Your task to perform on an android device: read, delete, or share a saved page in the chrome app Image 0: 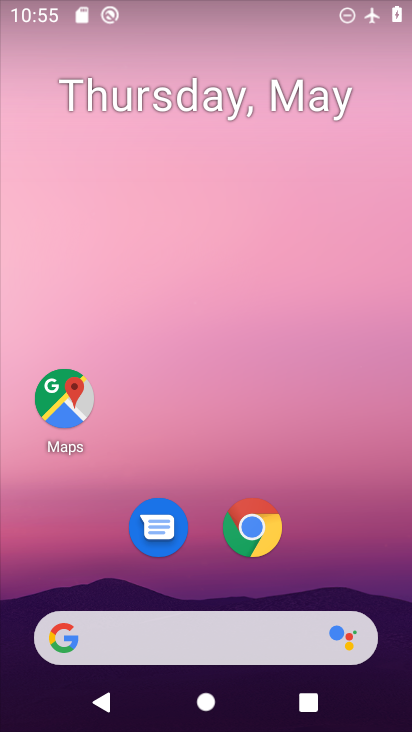
Step 0: click (248, 531)
Your task to perform on an android device: read, delete, or share a saved page in the chrome app Image 1: 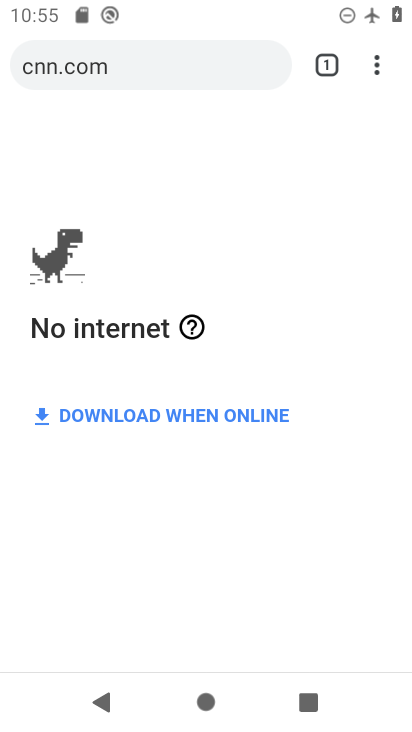
Step 1: click (382, 61)
Your task to perform on an android device: read, delete, or share a saved page in the chrome app Image 2: 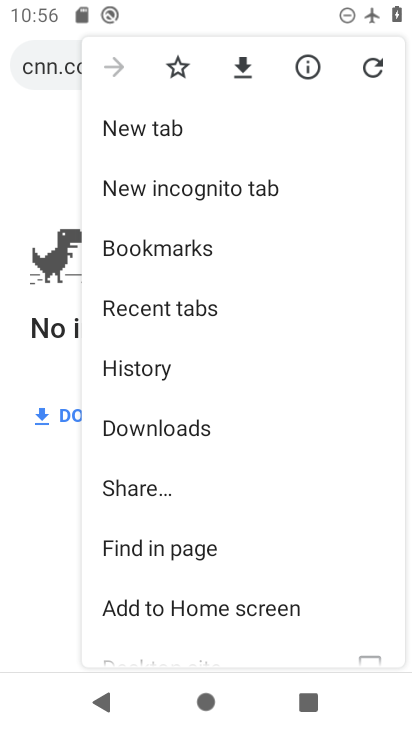
Step 2: click (142, 424)
Your task to perform on an android device: read, delete, or share a saved page in the chrome app Image 3: 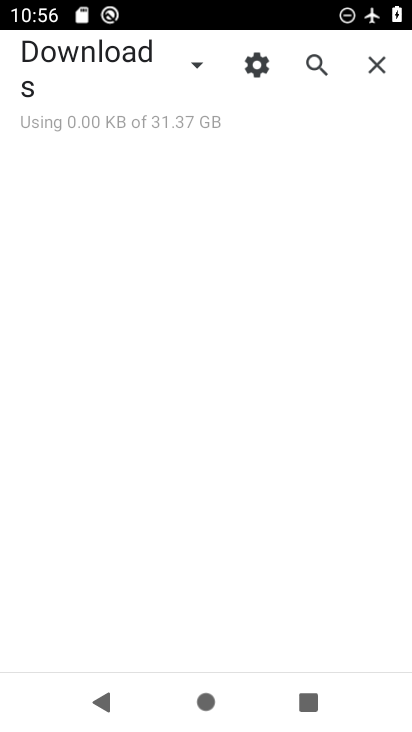
Step 3: task complete